Your task to perform on an android device: Open calendar and show me the second week of next month Image 0: 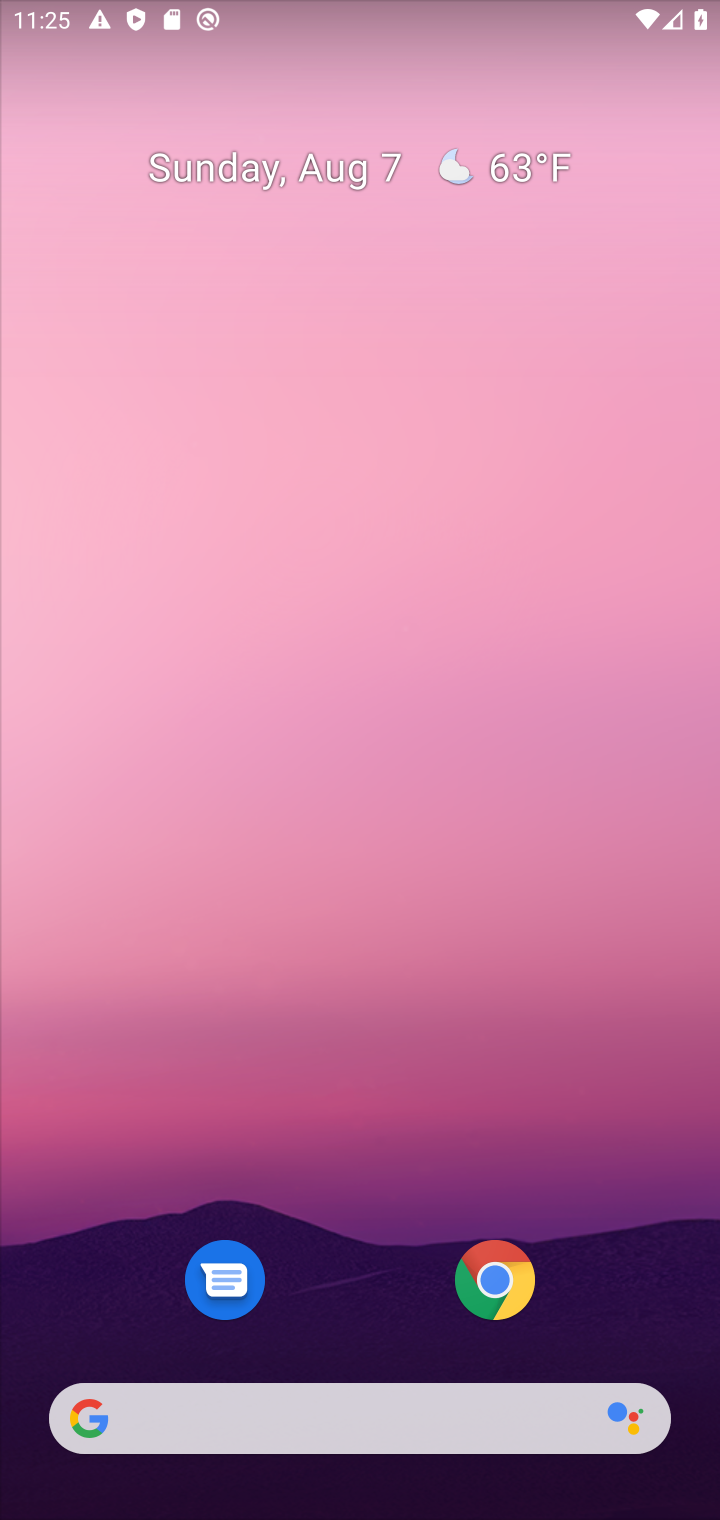
Step 0: drag from (347, 1203) to (418, 177)
Your task to perform on an android device: Open calendar and show me the second week of next month Image 1: 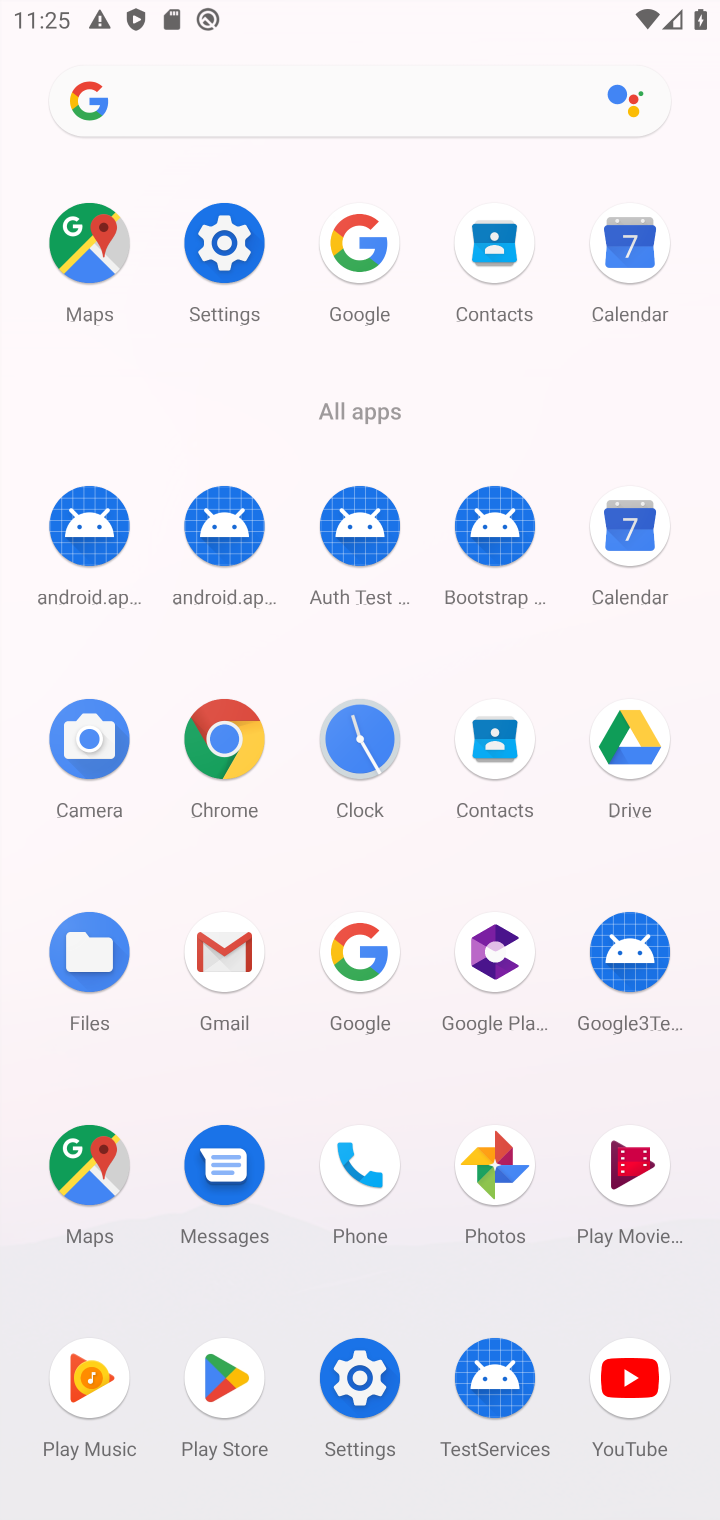
Step 1: click (619, 538)
Your task to perform on an android device: Open calendar and show me the second week of next month Image 2: 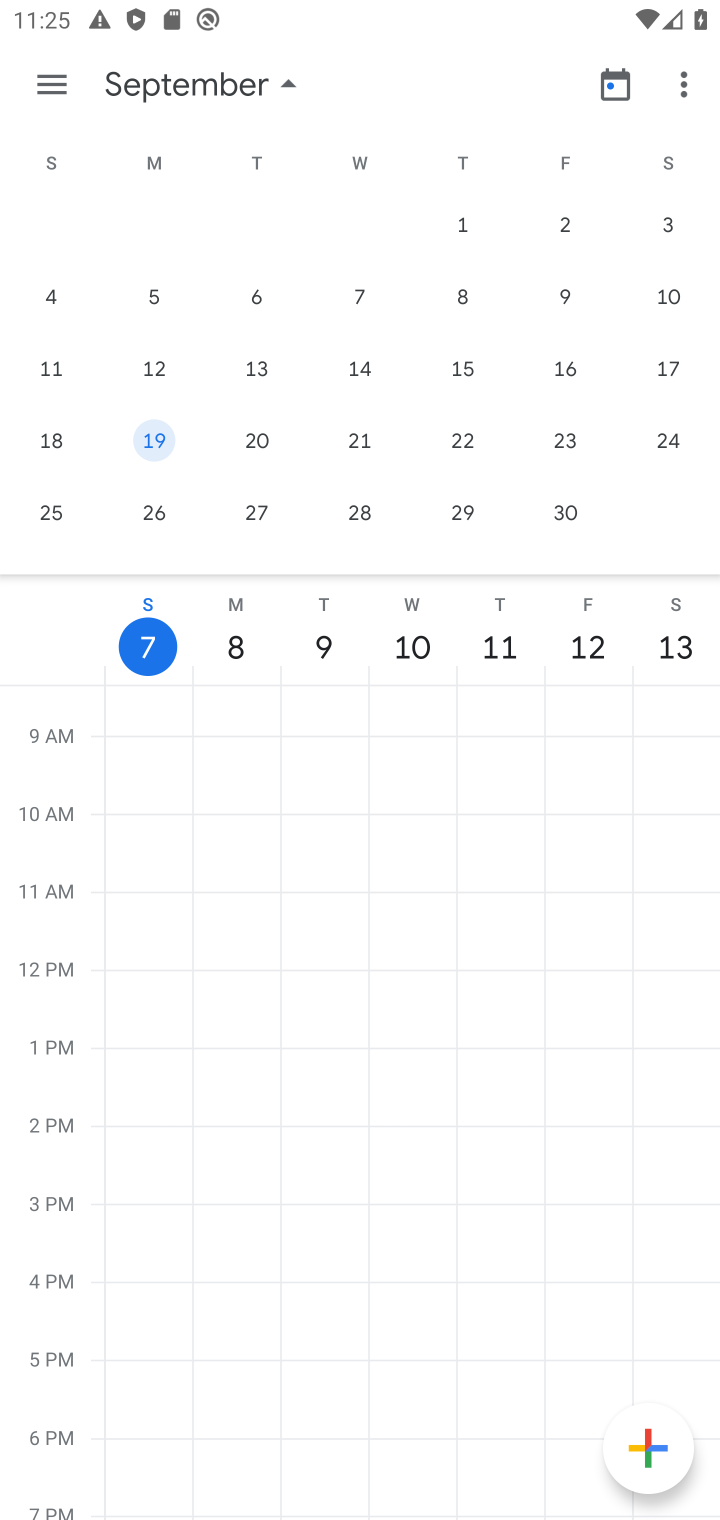
Step 2: click (147, 361)
Your task to perform on an android device: Open calendar and show me the second week of next month Image 3: 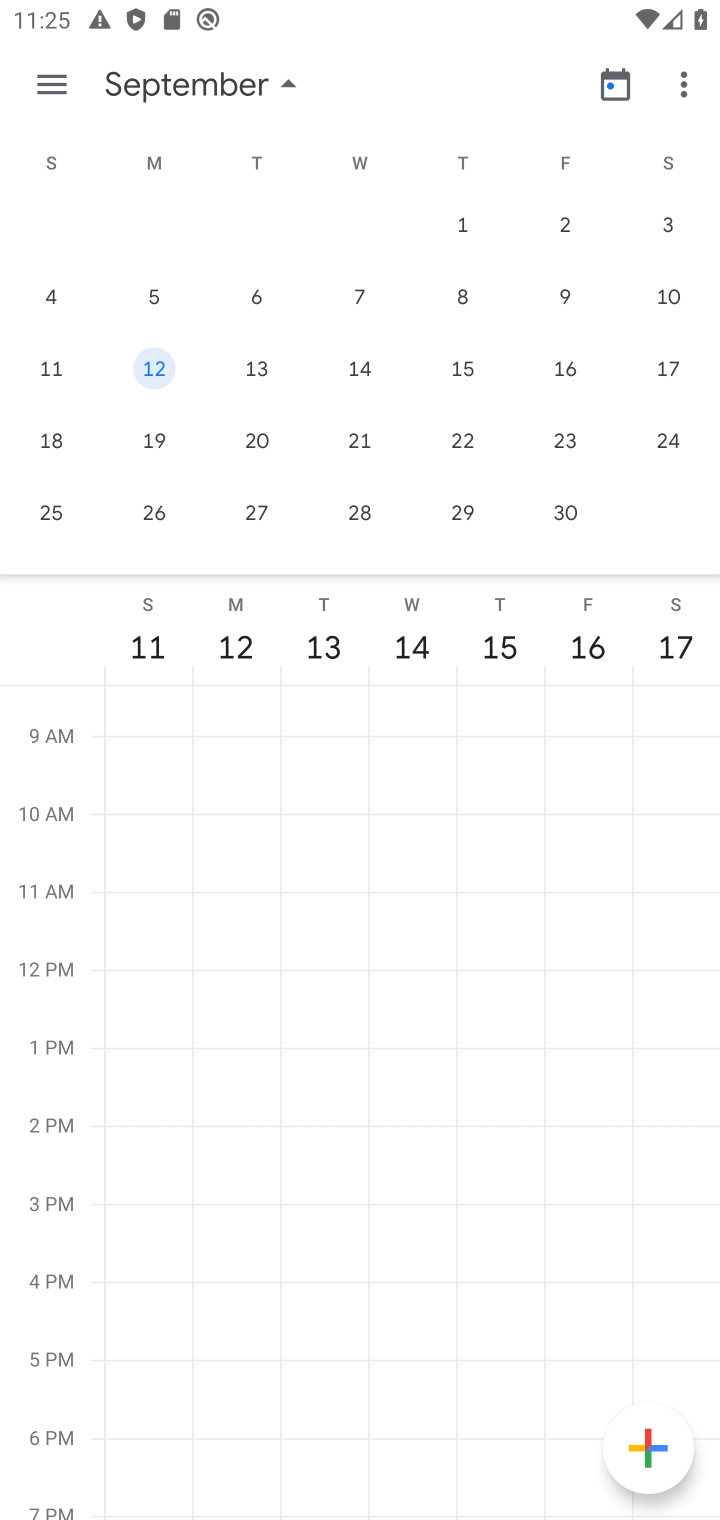
Step 3: click (160, 363)
Your task to perform on an android device: Open calendar and show me the second week of next month Image 4: 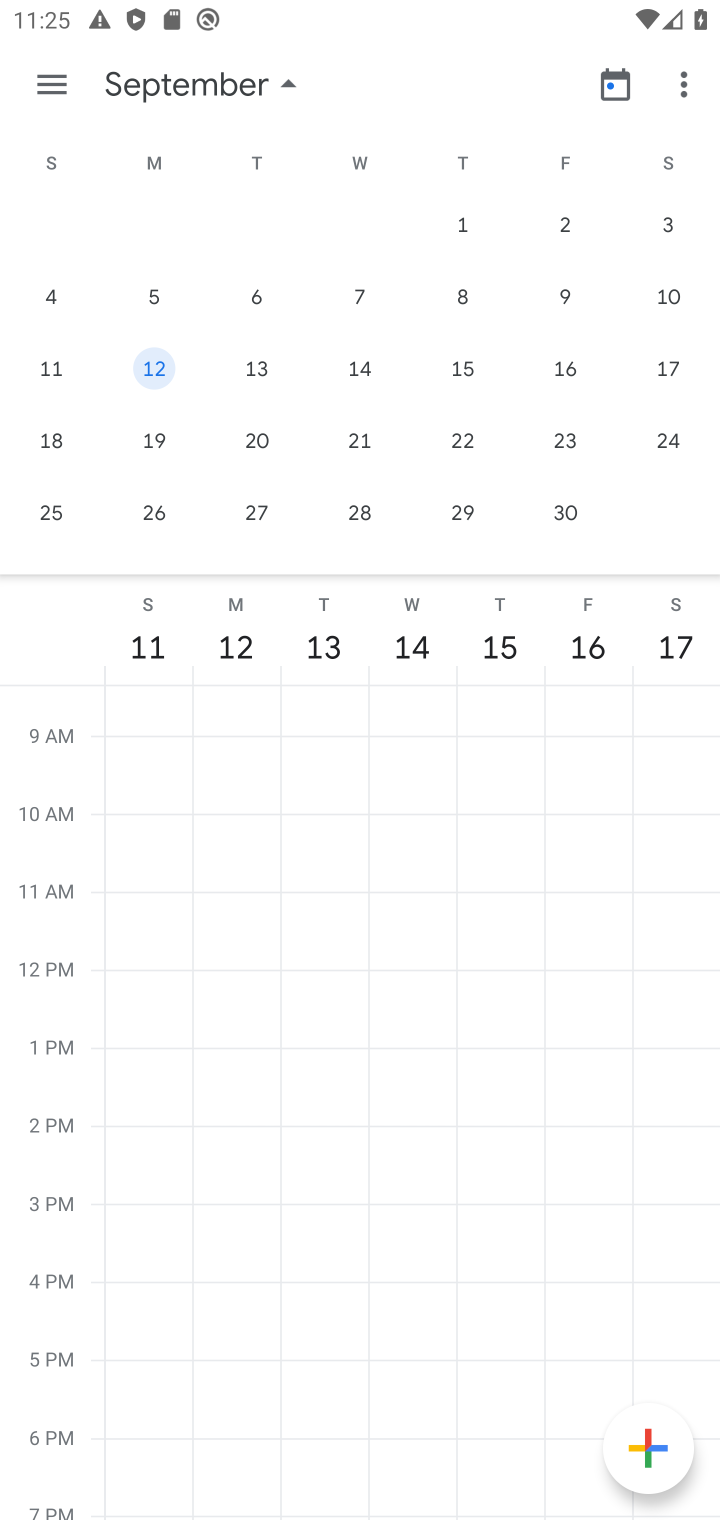
Step 4: click (150, 373)
Your task to perform on an android device: Open calendar and show me the second week of next month Image 5: 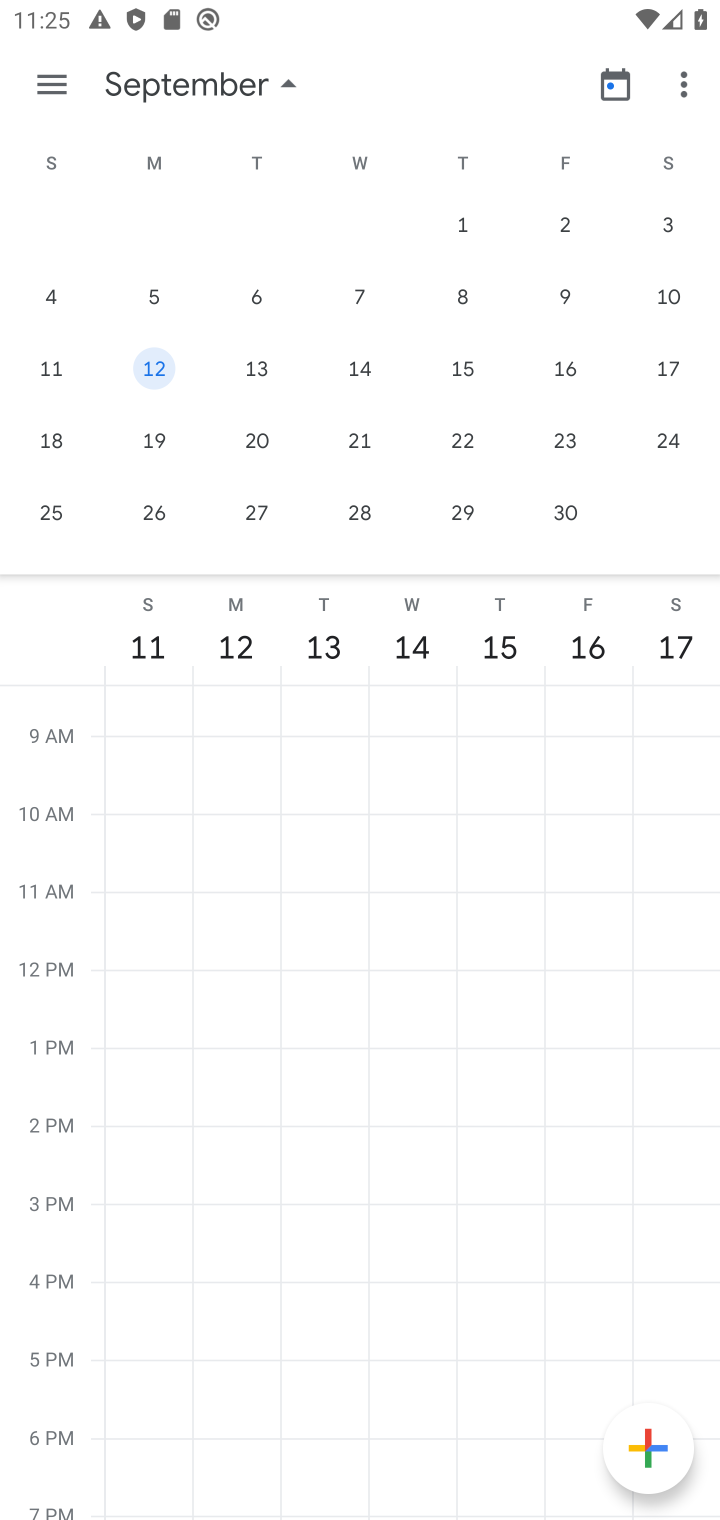
Step 5: click (235, 641)
Your task to perform on an android device: Open calendar and show me the second week of next month Image 6: 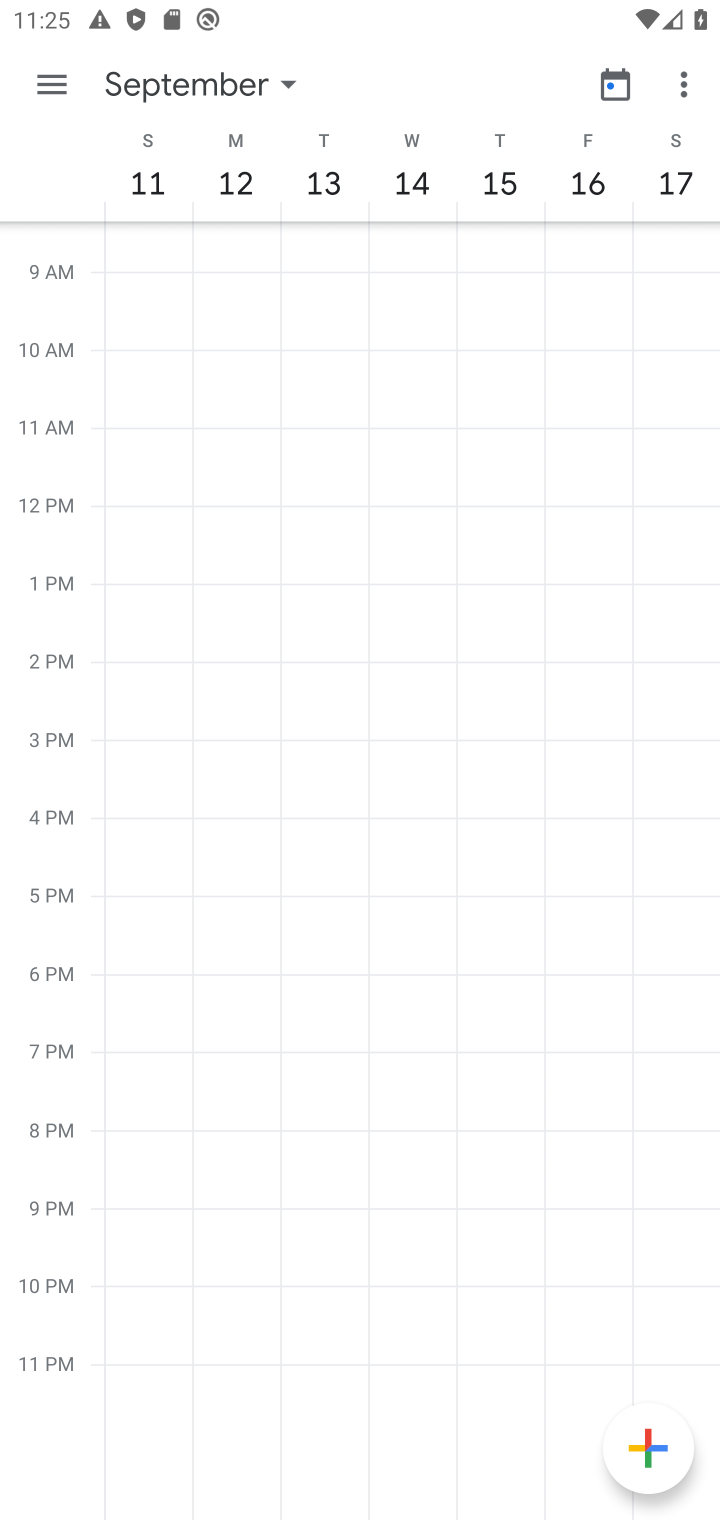
Step 6: task complete